Your task to perform on an android device: Open ESPN.com Image 0: 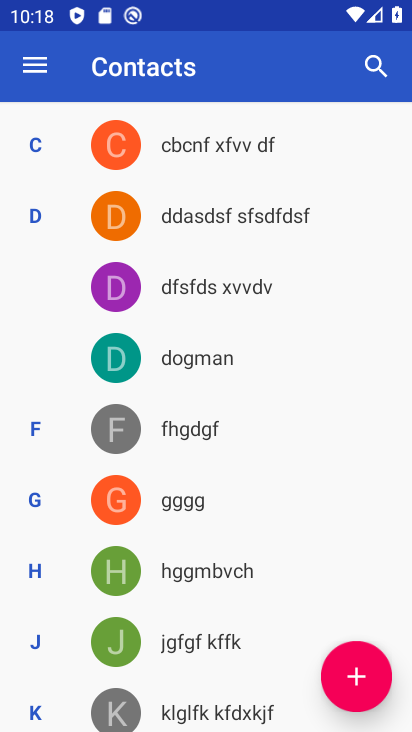
Step 0: press home button
Your task to perform on an android device: Open ESPN.com Image 1: 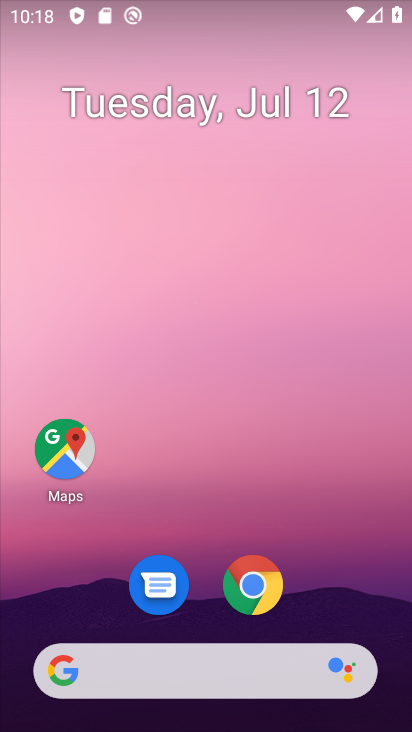
Step 1: click (241, 686)
Your task to perform on an android device: Open ESPN.com Image 2: 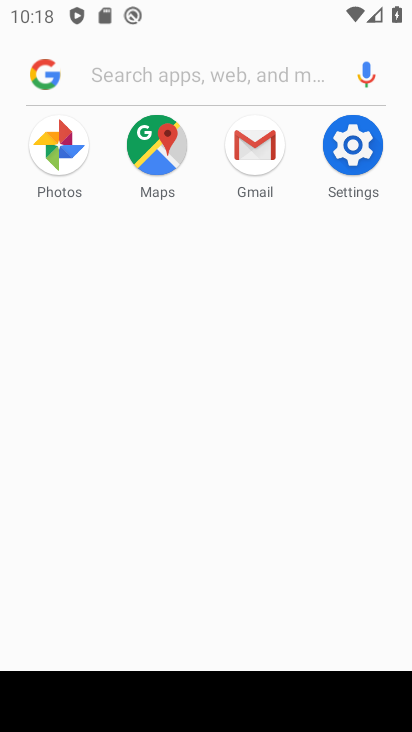
Step 2: press back button
Your task to perform on an android device: Open ESPN.com Image 3: 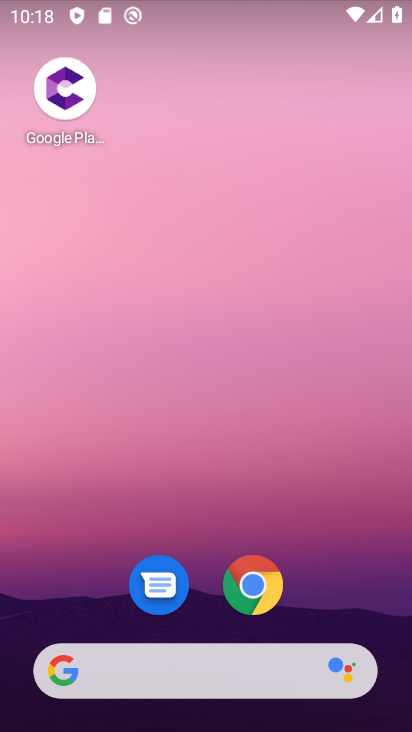
Step 3: click (60, 675)
Your task to perform on an android device: Open ESPN.com Image 4: 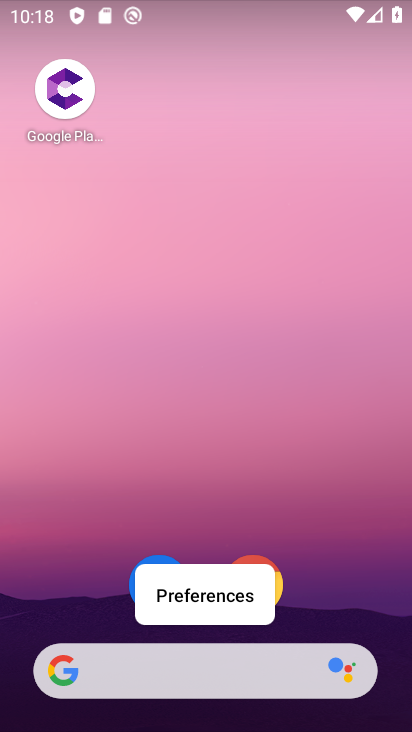
Step 4: click (107, 659)
Your task to perform on an android device: Open ESPN.com Image 5: 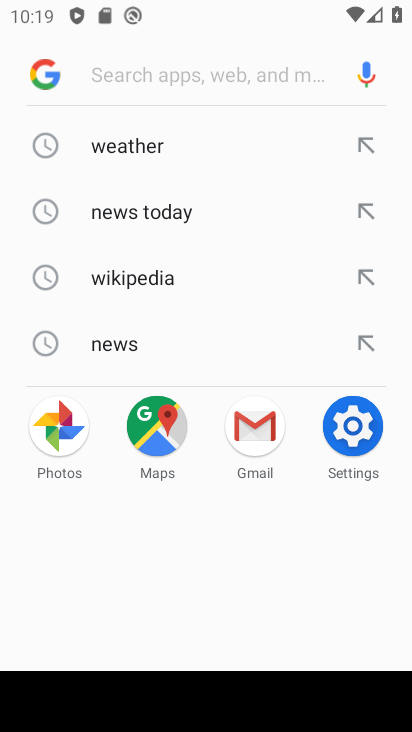
Step 5: type "espn.com"
Your task to perform on an android device: Open ESPN.com Image 6: 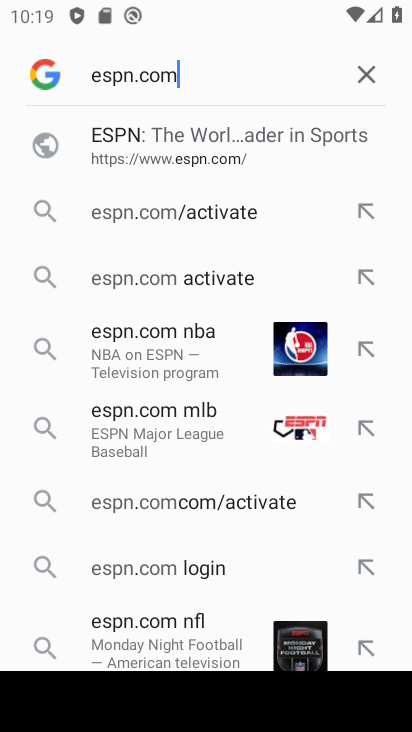
Step 6: click (131, 144)
Your task to perform on an android device: Open ESPN.com Image 7: 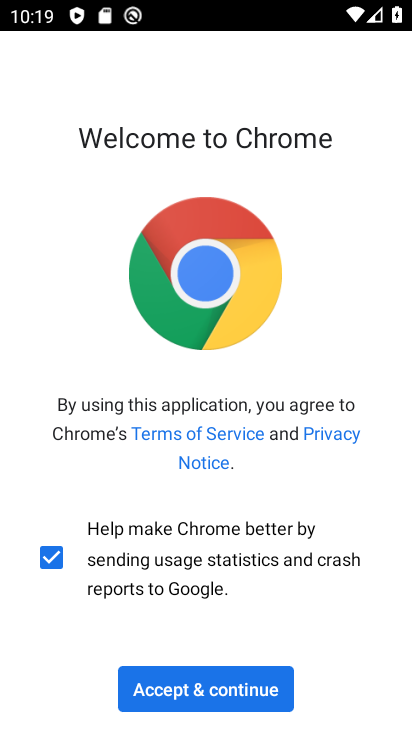
Step 7: click (209, 690)
Your task to perform on an android device: Open ESPN.com Image 8: 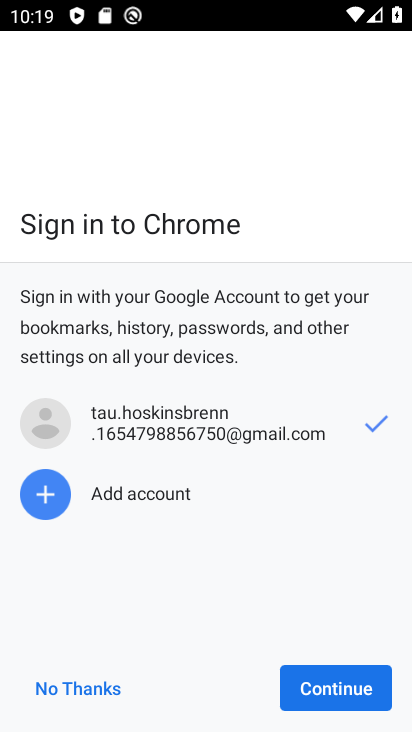
Step 8: click (311, 687)
Your task to perform on an android device: Open ESPN.com Image 9: 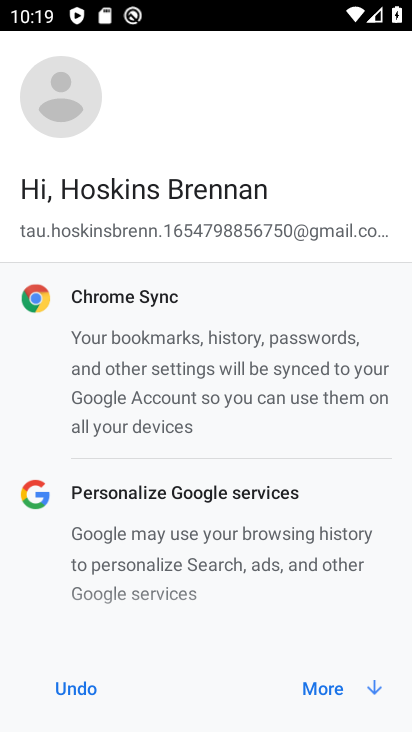
Step 9: click (341, 689)
Your task to perform on an android device: Open ESPN.com Image 10: 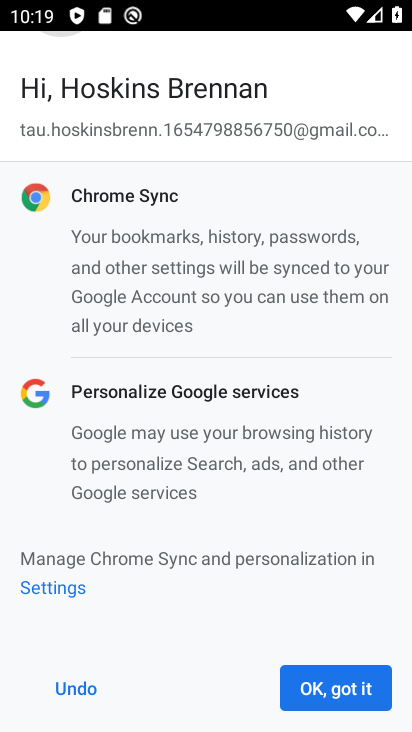
Step 10: click (341, 689)
Your task to perform on an android device: Open ESPN.com Image 11: 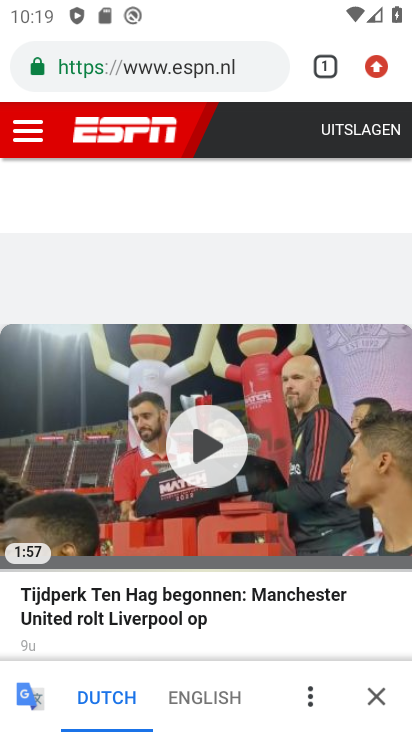
Step 11: task complete